Your task to perform on an android device: turn off translation in the chrome app Image 0: 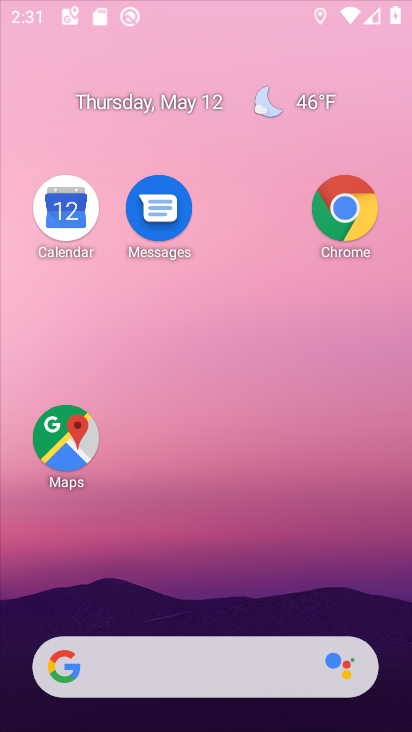
Step 0: click (265, 256)
Your task to perform on an android device: turn off translation in the chrome app Image 1: 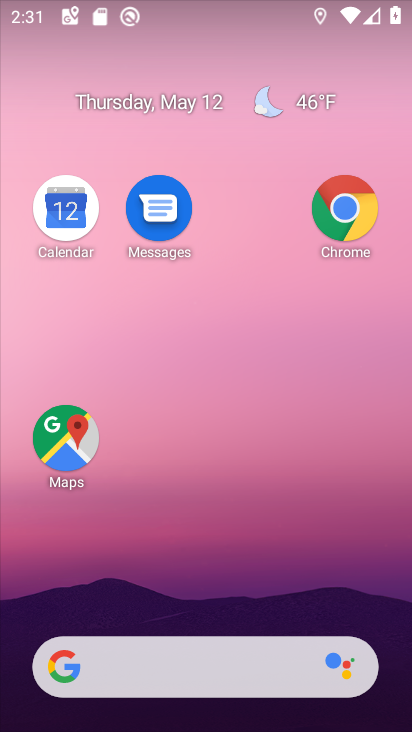
Step 1: drag from (208, 584) to (219, 182)
Your task to perform on an android device: turn off translation in the chrome app Image 2: 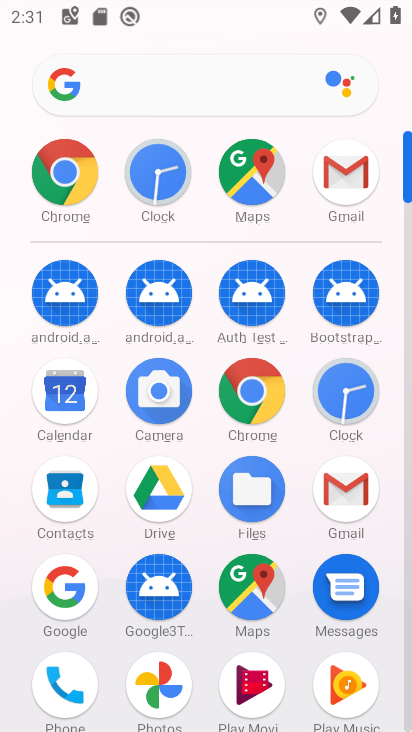
Step 2: click (258, 378)
Your task to perform on an android device: turn off translation in the chrome app Image 3: 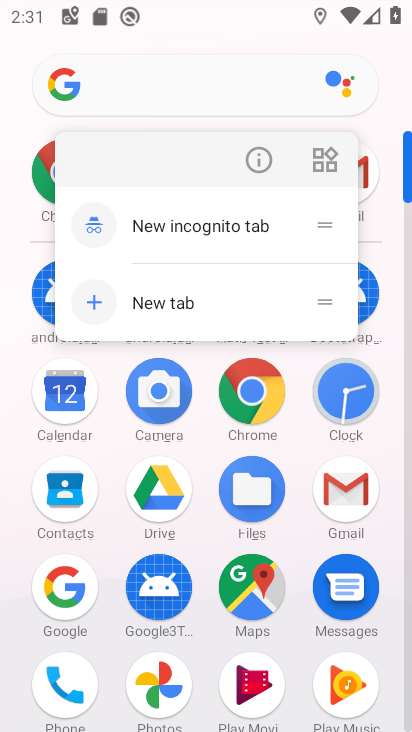
Step 3: click (257, 167)
Your task to perform on an android device: turn off translation in the chrome app Image 4: 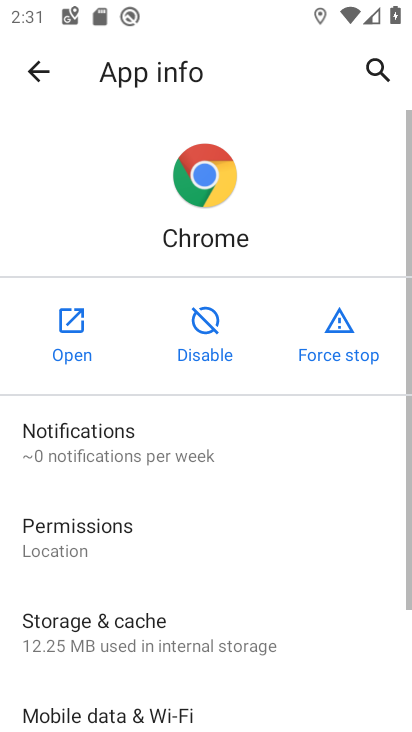
Step 4: click (55, 334)
Your task to perform on an android device: turn off translation in the chrome app Image 5: 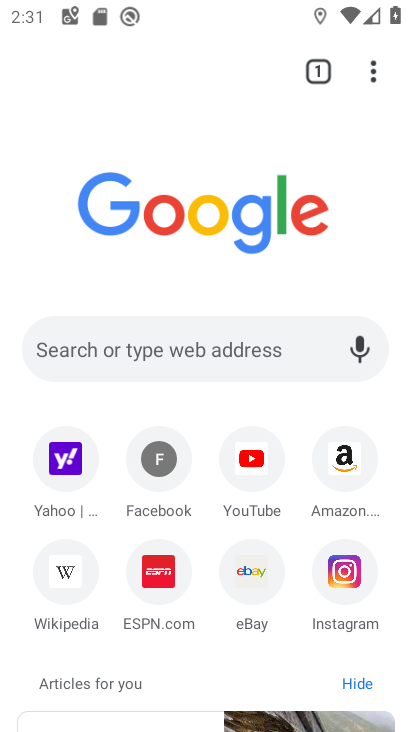
Step 5: drag from (192, 558) to (207, 232)
Your task to perform on an android device: turn off translation in the chrome app Image 6: 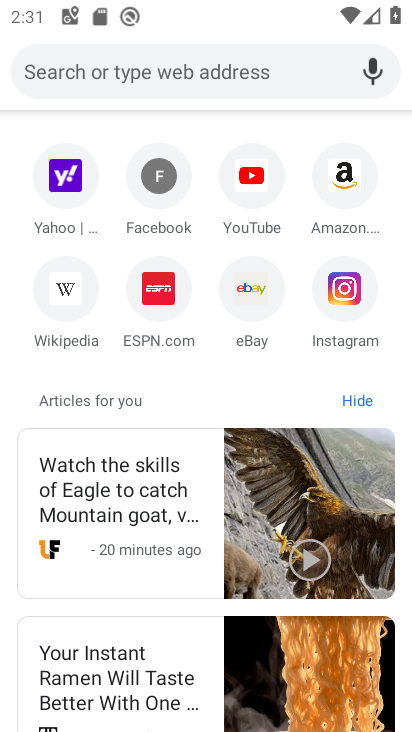
Step 6: drag from (361, 149) to (342, 610)
Your task to perform on an android device: turn off translation in the chrome app Image 7: 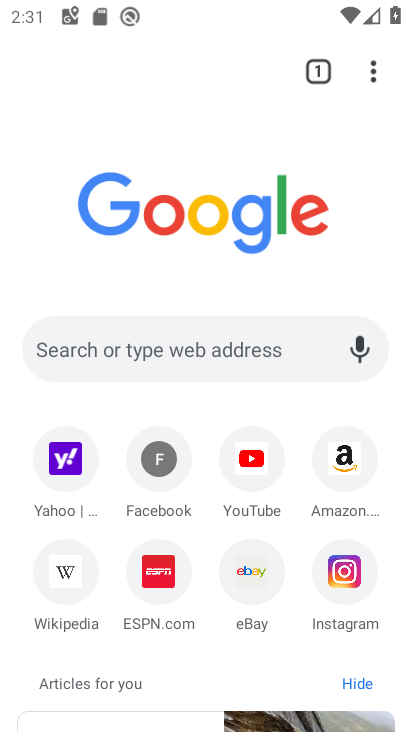
Step 7: click (374, 67)
Your task to perform on an android device: turn off translation in the chrome app Image 8: 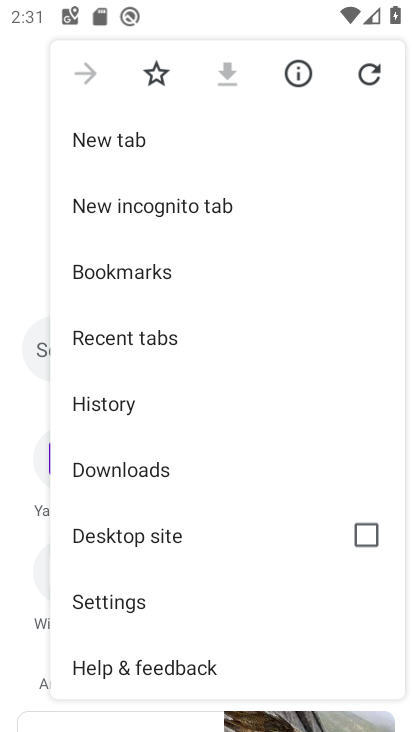
Step 8: drag from (138, 538) to (221, 169)
Your task to perform on an android device: turn off translation in the chrome app Image 9: 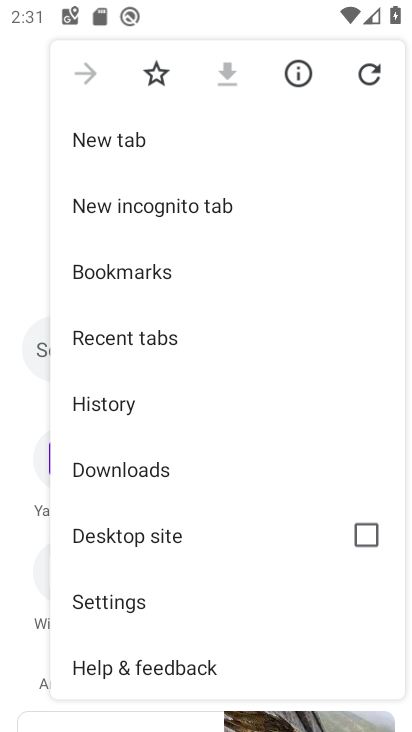
Step 9: click (192, 592)
Your task to perform on an android device: turn off translation in the chrome app Image 10: 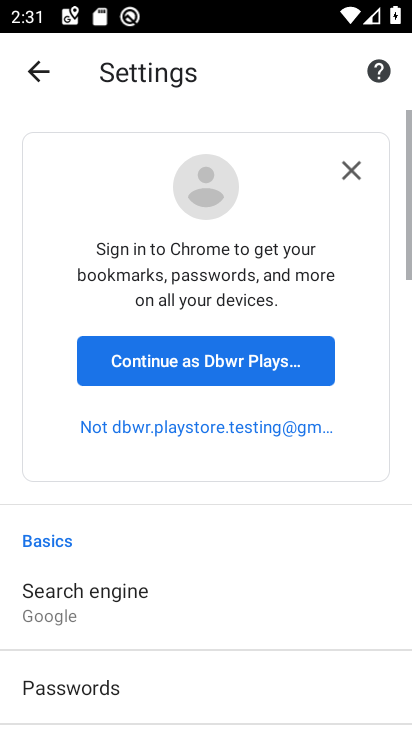
Step 10: drag from (225, 580) to (302, 54)
Your task to perform on an android device: turn off translation in the chrome app Image 11: 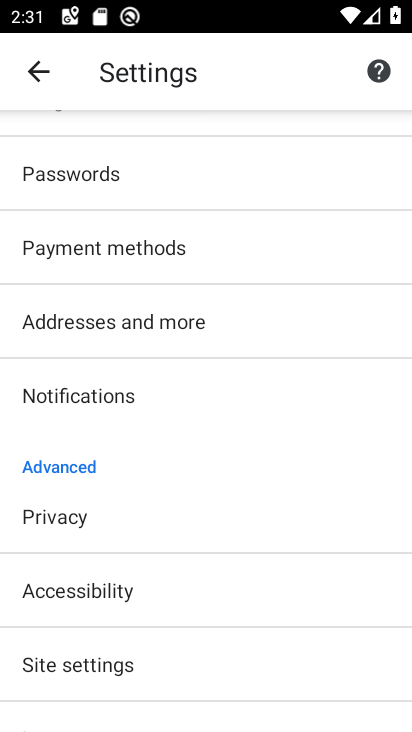
Step 11: drag from (194, 591) to (302, 92)
Your task to perform on an android device: turn off translation in the chrome app Image 12: 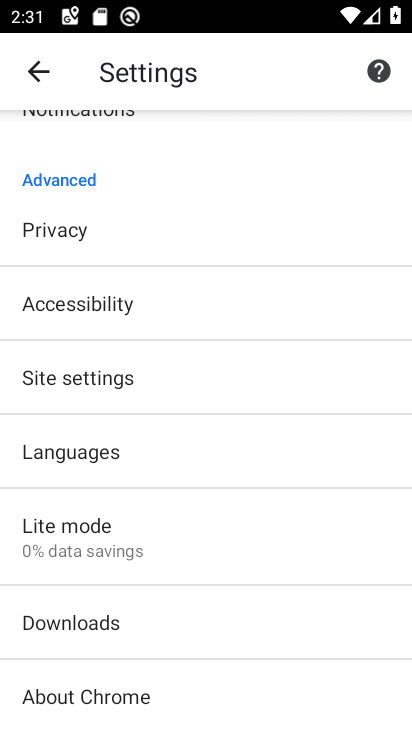
Step 12: click (110, 445)
Your task to perform on an android device: turn off translation in the chrome app Image 13: 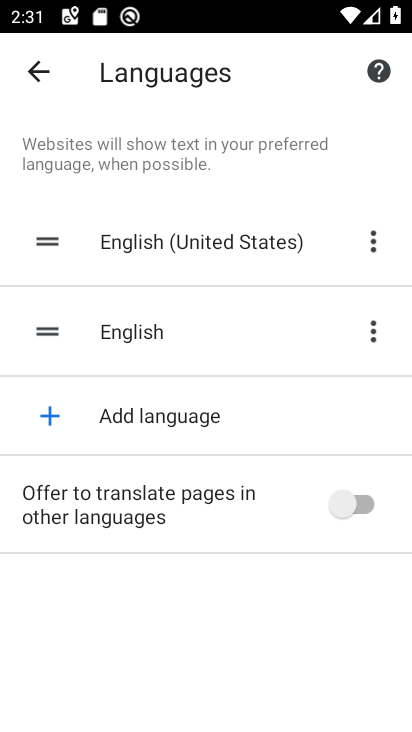
Step 13: task complete